Your task to perform on an android device: Search for logitech g pro on ebay, select the first entry, and add it to the cart. Image 0: 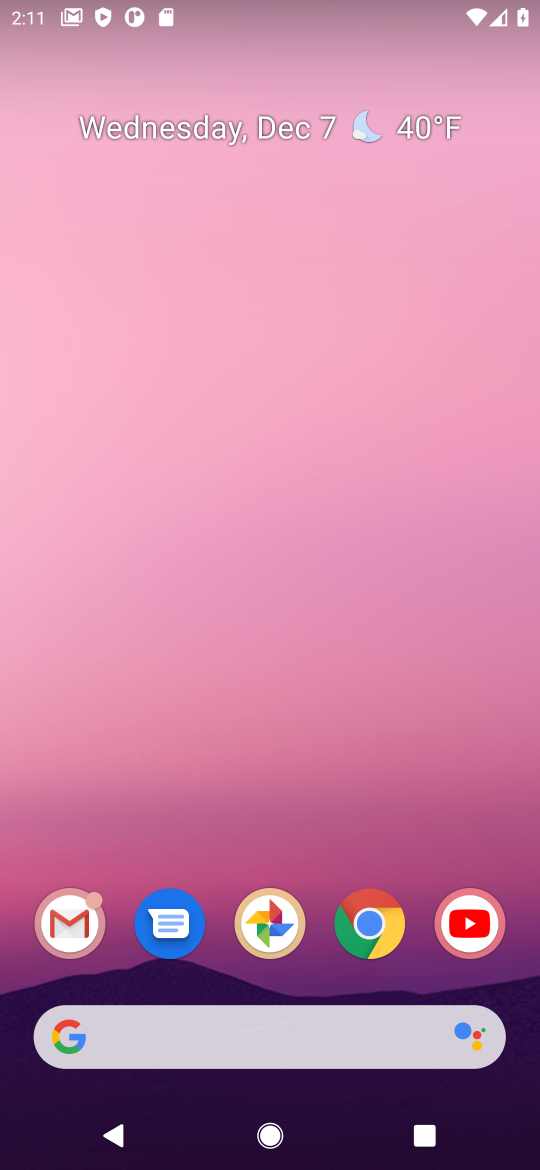
Step 0: click (383, 909)
Your task to perform on an android device: Search for logitech g pro on ebay, select the first entry, and add it to the cart. Image 1: 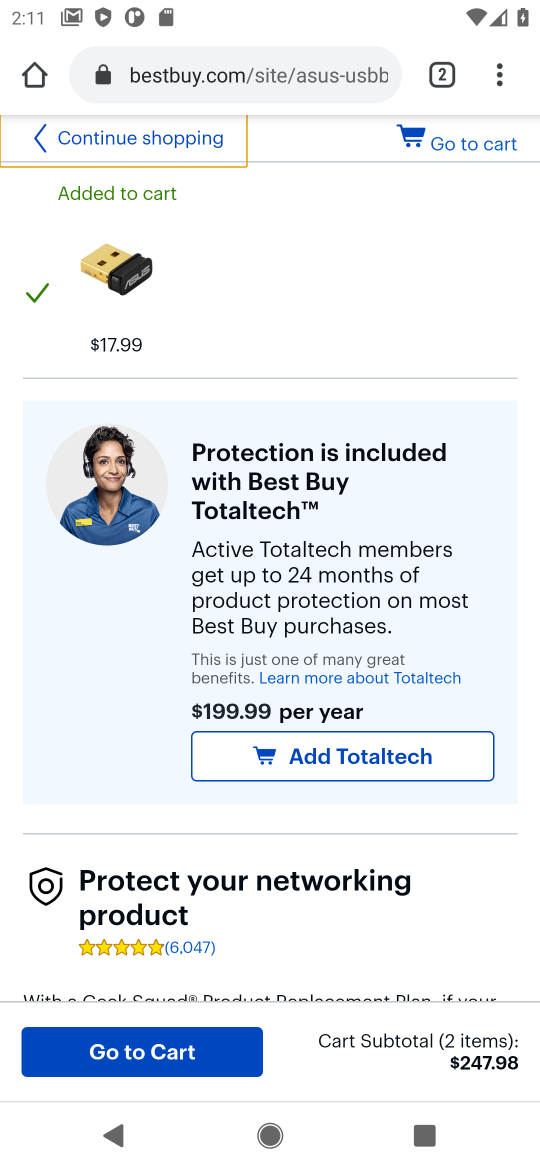
Step 1: click (322, 70)
Your task to perform on an android device: Search for logitech g pro on ebay, select the first entry, and add it to the cart. Image 2: 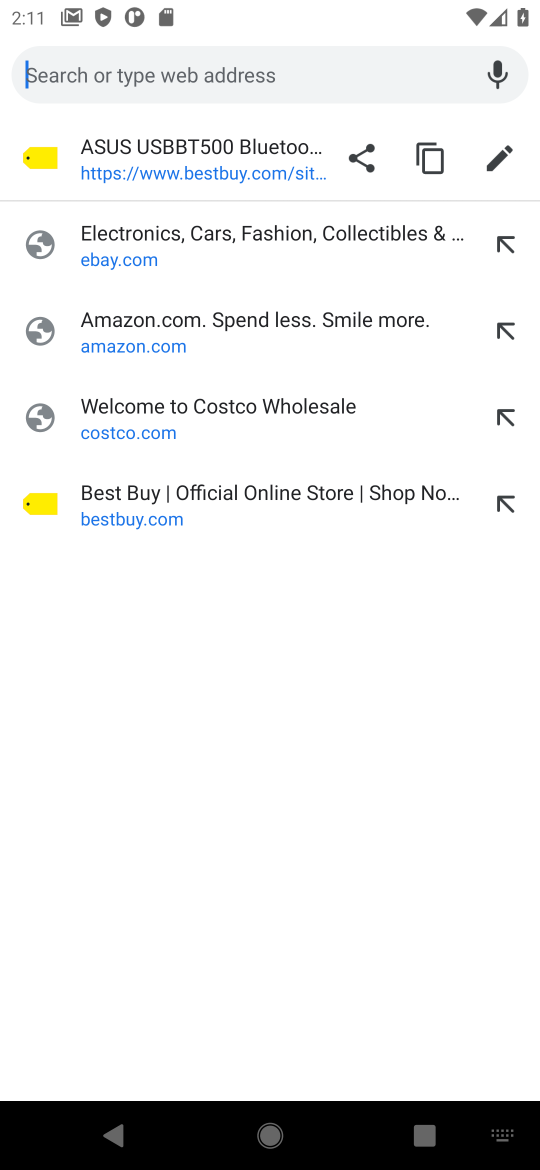
Step 2: click (179, 244)
Your task to perform on an android device: Search for logitech g pro on ebay, select the first entry, and add it to the cart. Image 3: 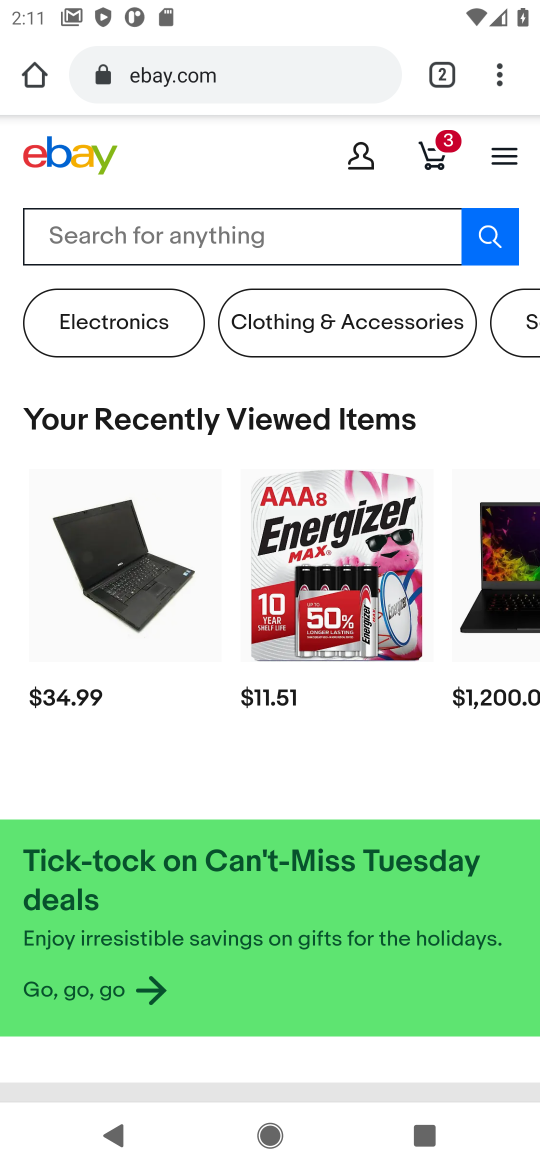
Step 3: click (339, 228)
Your task to perform on an android device: Search for logitech g pro on ebay, select the first entry, and add it to the cart. Image 4: 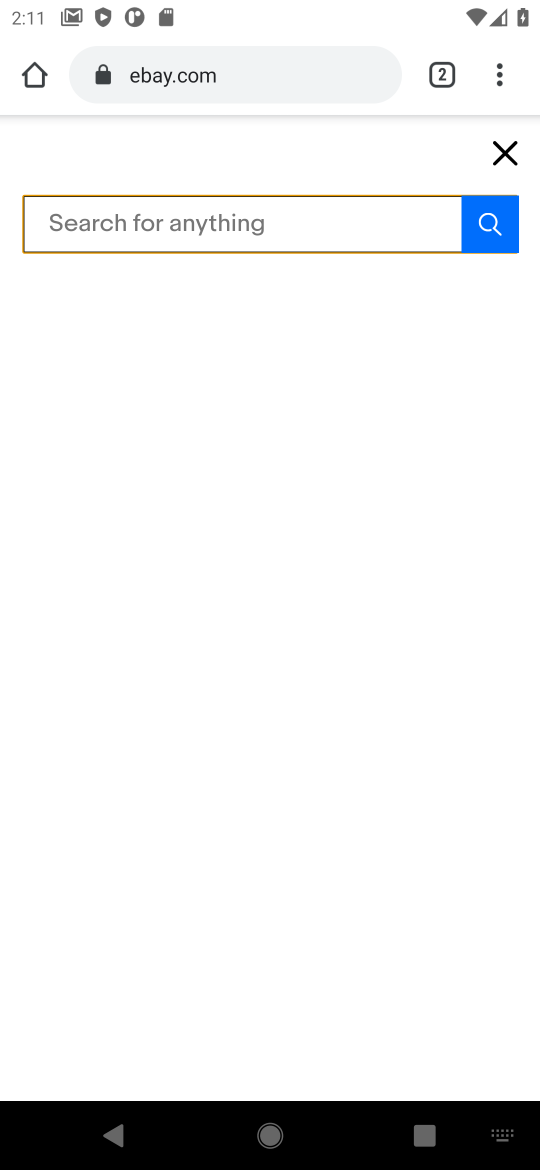
Step 4: type "logitech g pro"
Your task to perform on an android device: Search for logitech g pro on ebay, select the first entry, and add it to the cart. Image 5: 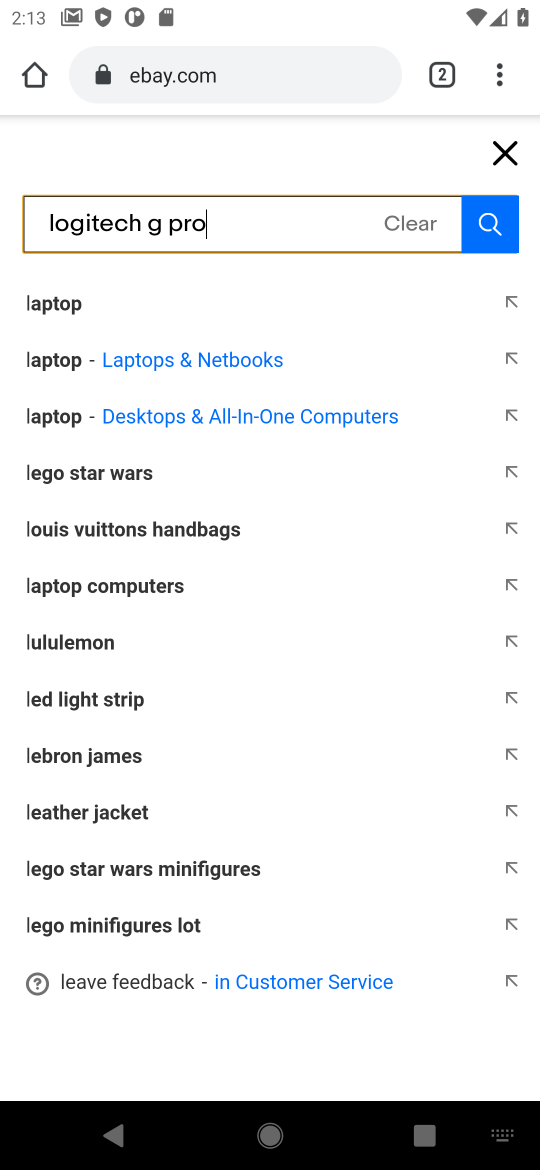
Step 5: click (55, 304)
Your task to perform on an android device: Search for logitech g pro on ebay, select the first entry, and add it to the cart. Image 6: 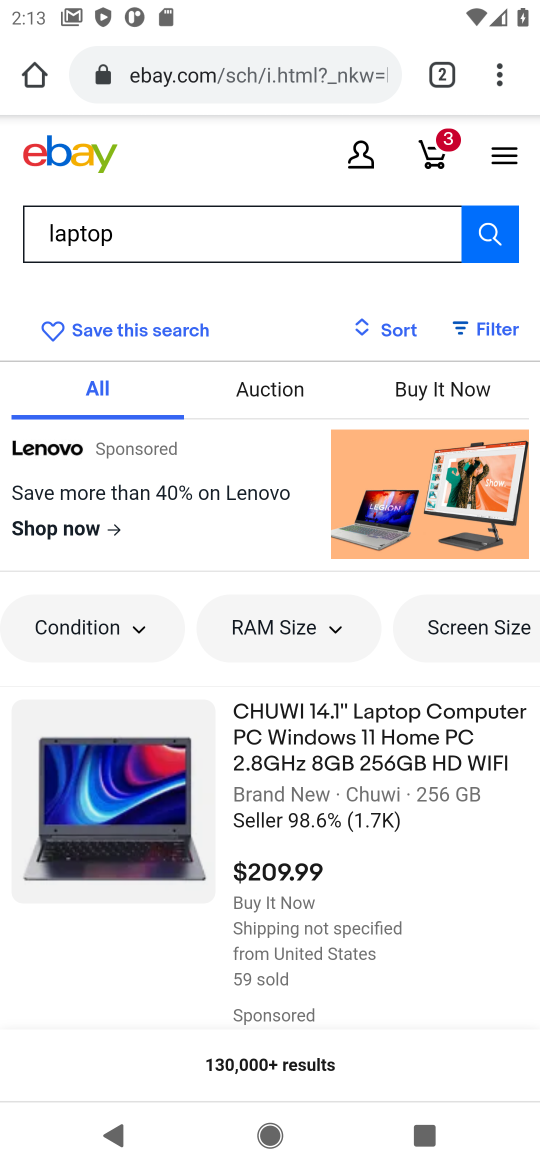
Step 6: click (161, 816)
Your task to perform on an android device: Search for logitech g pro on ebay, select the first entry, and add it to the cart. Image 7: 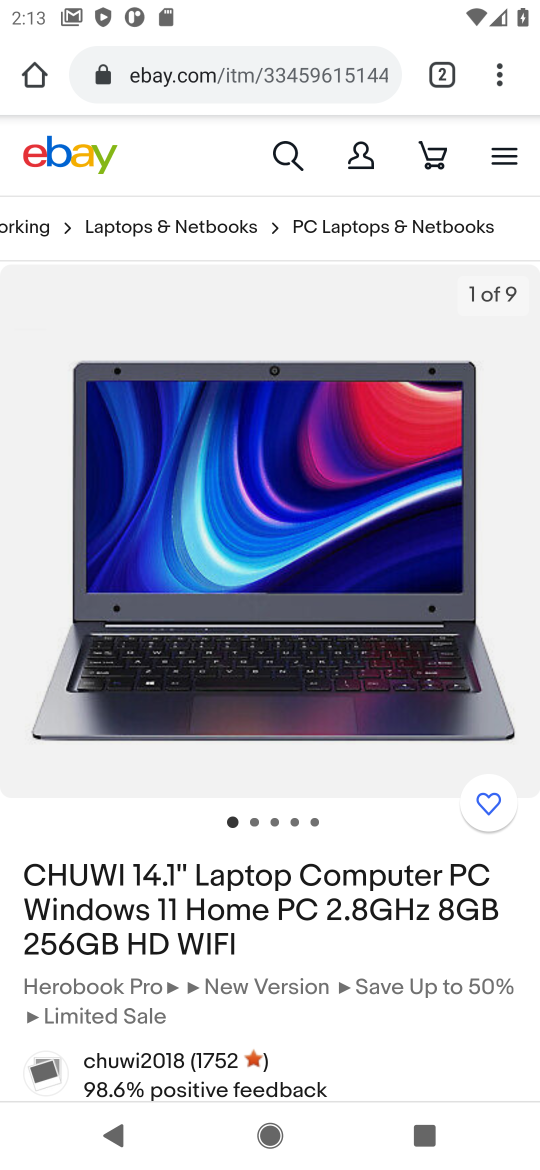
Step 7: drag from (375, 974) to (349, 293)
Your task to perform on an android device: Search for logitech g pro on ebay, select the first entry, and add it to the cart. Image 8: 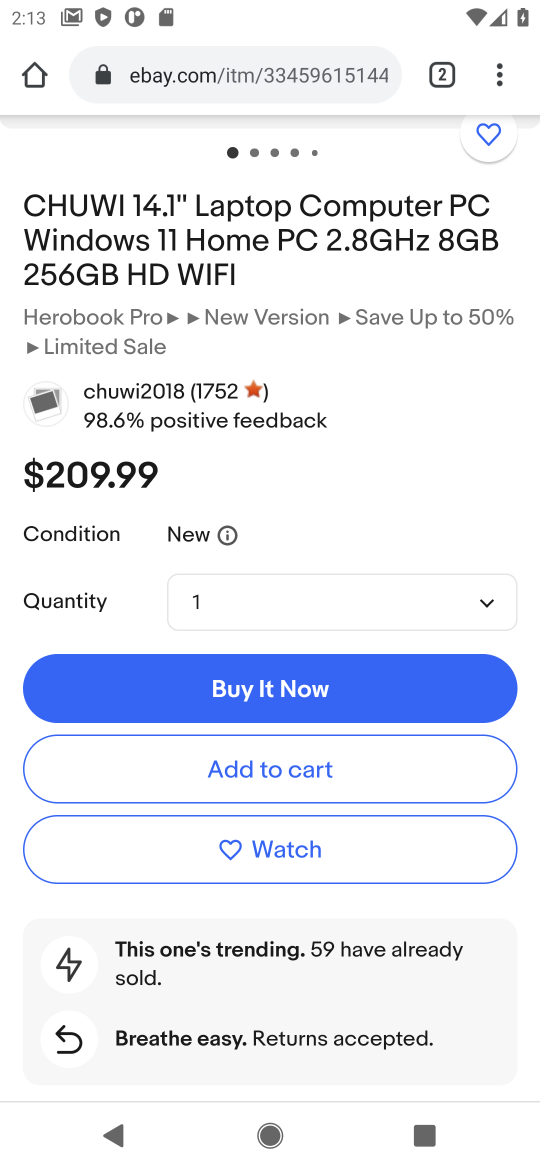
Step 8: click (233, 761)
Your task to perform on an android device: Search for logitech g pro on ebay, select the first entry, and add it to the cart. Image 9: 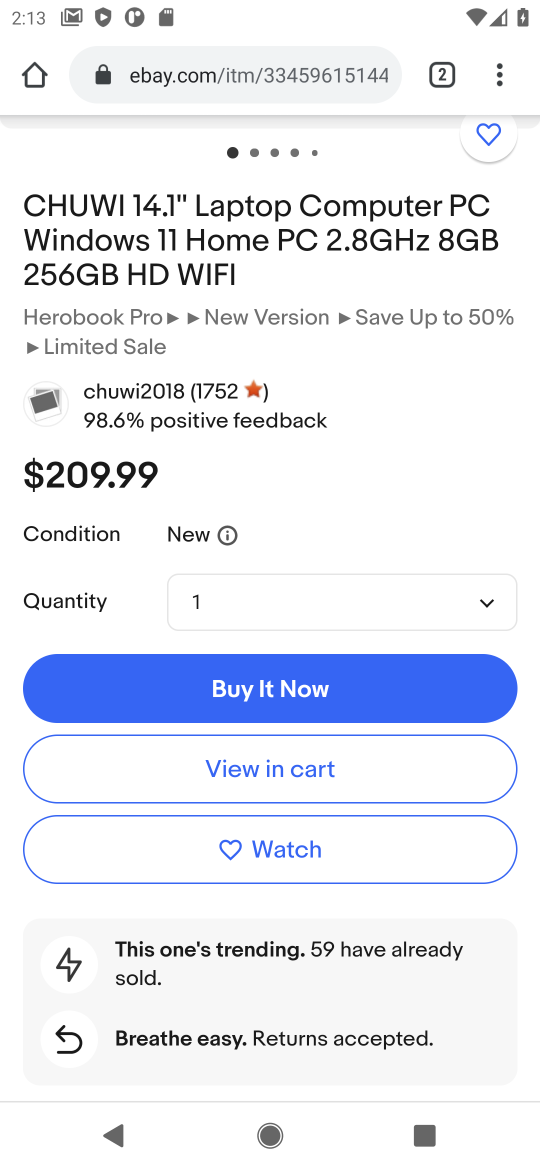
Step 9: click (233, 761)
Your task to perform on an android device: Search for logitech g pro on ebay, select the first entry, and add it to the cart. Image 10: 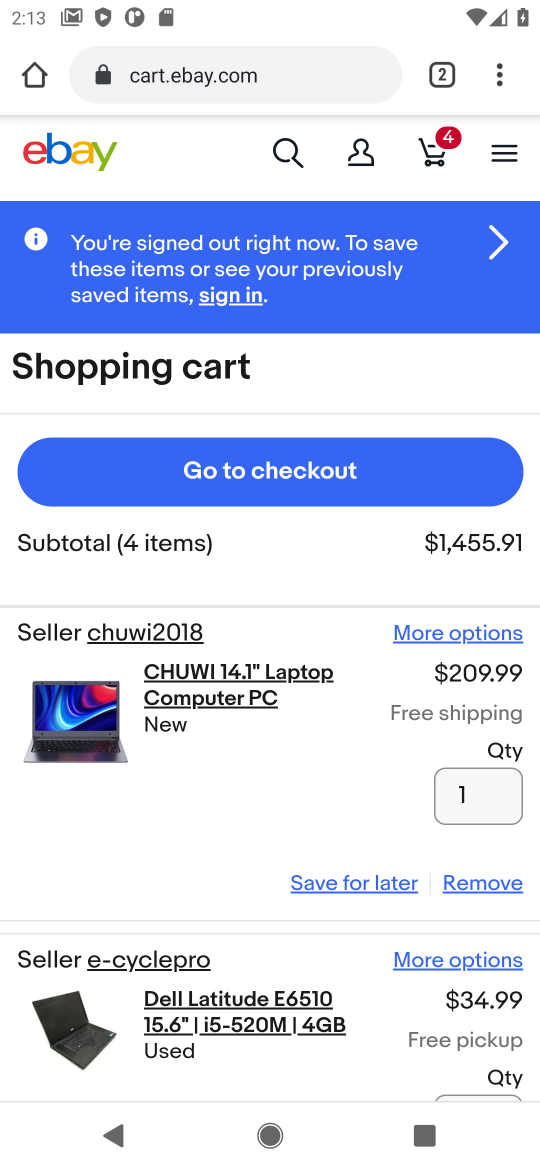
Step 10: task complete